Your task to perform on an android device: change the clock style Image 0: 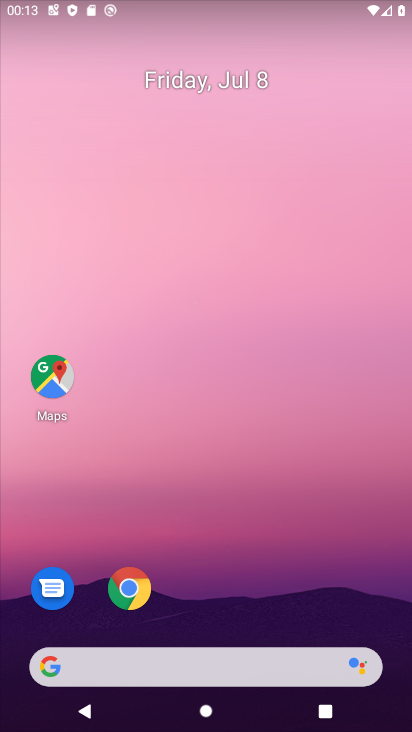
Step 0: drag from (197, 603) to (261, 99)
Your task to perform on an android device: change the clock style Image 1: 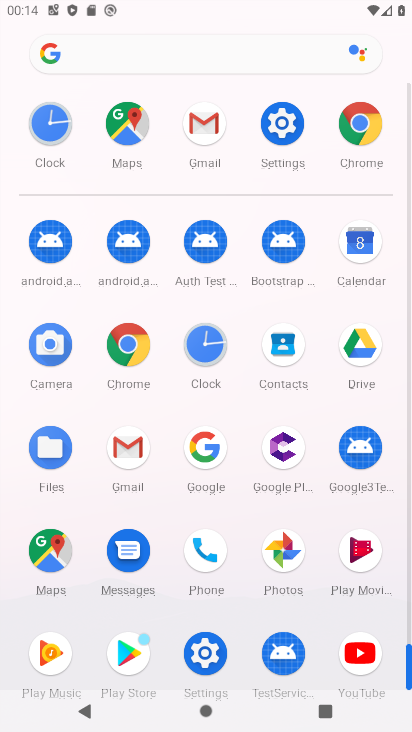
Step 1: click (196, 346)
Your task to perform on an android device: change the clock style Image 2: 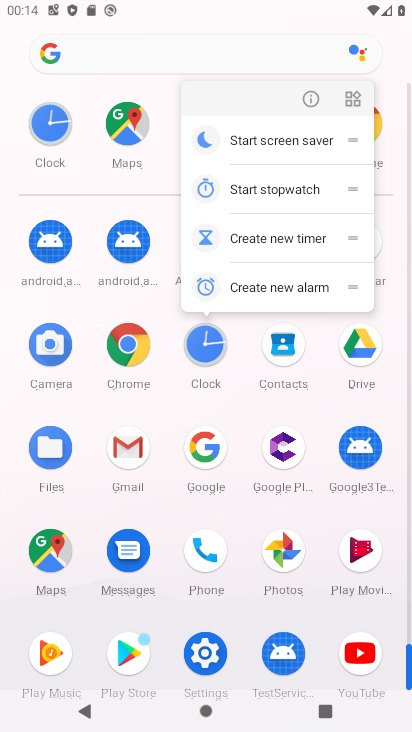
Step 2: click (305, 101)
Your task to perform on an android device: change the clock style Image 3: 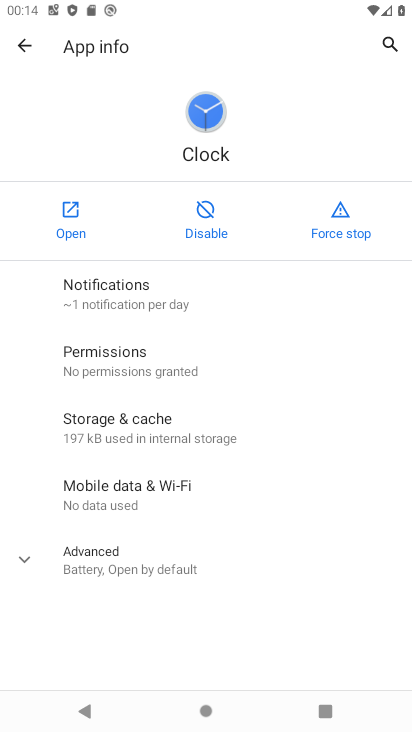
Step 3: click (47, 221)
Your task to perform on an android device: change the clock style Image 4: 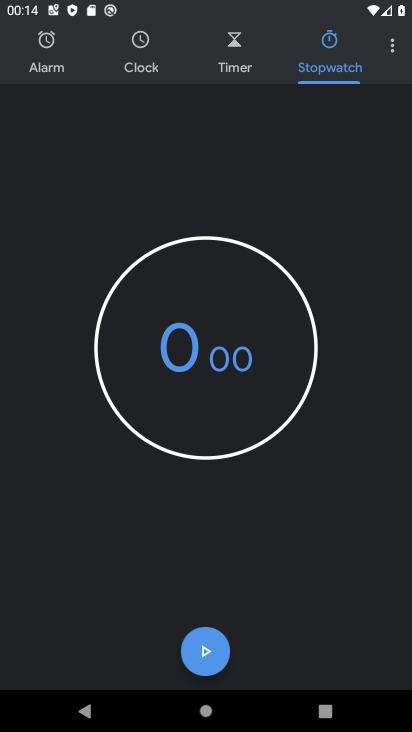
Step 4: click (29, 65)
Your task to perform on an android device: change the clock style Image 5: 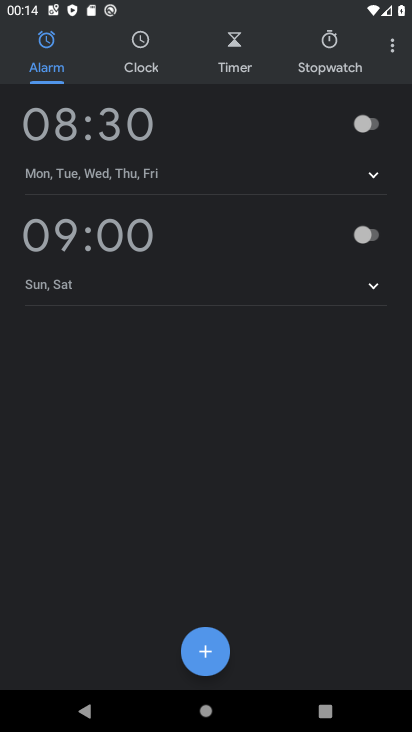
Step 5: click (143, 40)
Your task to perform on an android device: change the clock style Image 6: 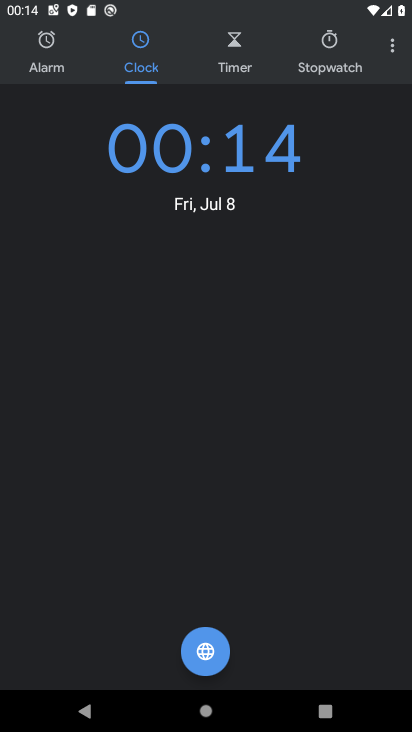
Step 6: click (392, 41)
Your task to perform on an android device: change the clock style Image 7: 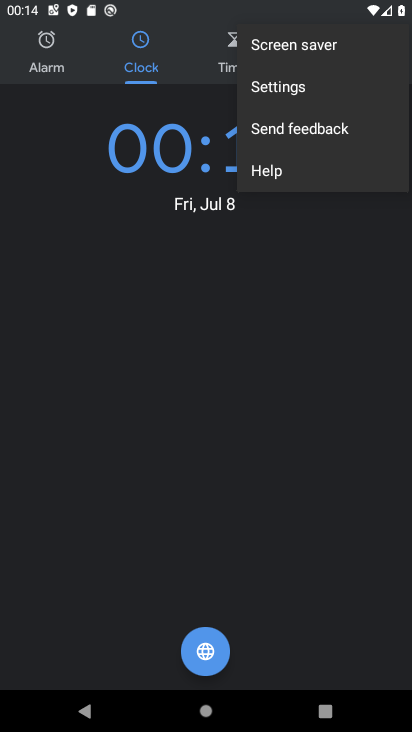
Step 7: click (318, 94)
Your task to perform on an android device: change the clock style Image 8: 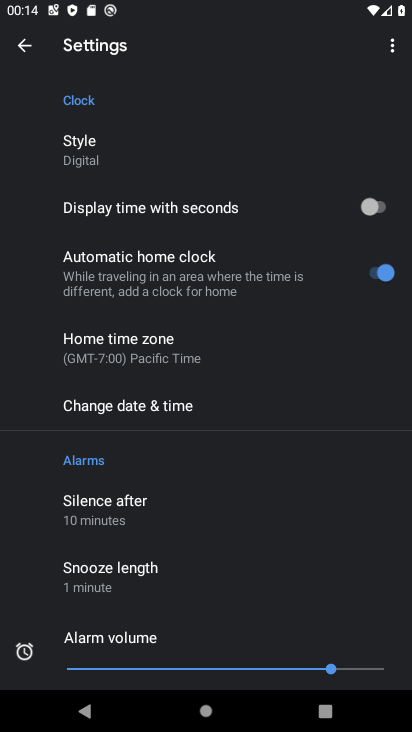
Step 8: drag from (179, 593) to (192, 179)
Your task to perform on an android device: change the clock style Image 9: 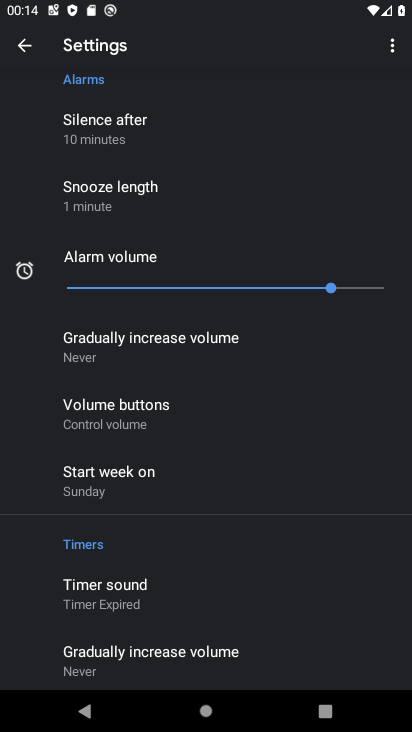
Step 9: drag from (185, 111) to (191, 729)
Your task to perform on an android device: change the clock style Image 10: 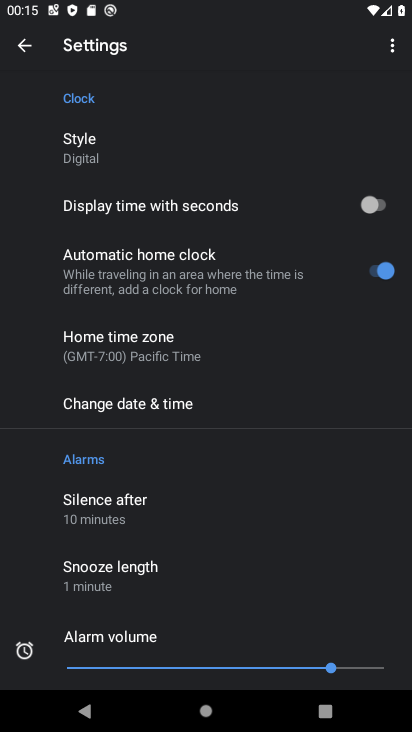
Step 10: click (105, 143)
Your task to perform on an android device: change the clock style Image 11: 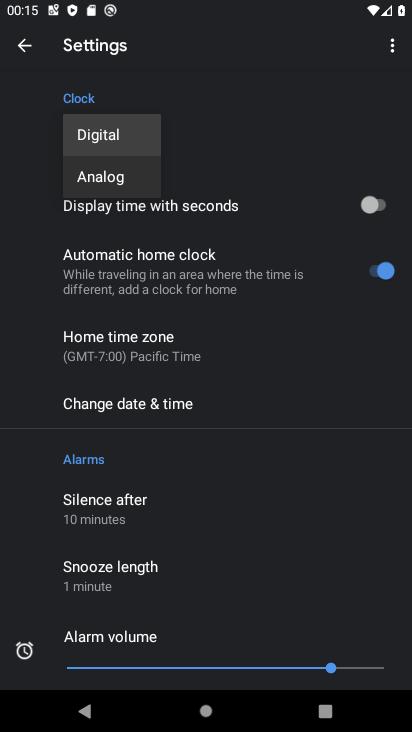
Step 11: click (111, 176)
Your task to perform on an android device: change the clock style Image 12: 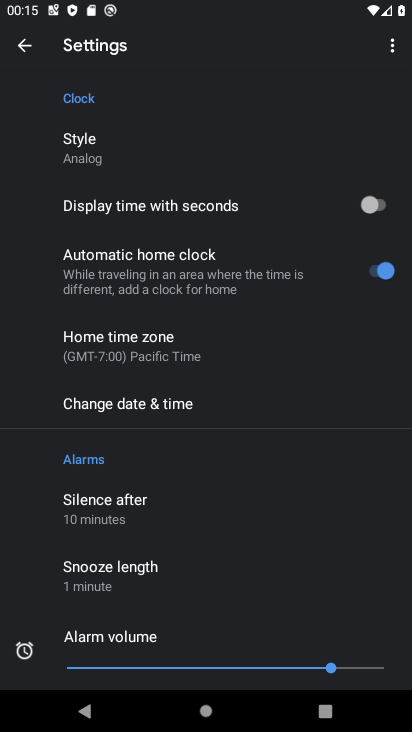
Step 12: task complete